Your task to perform on an android device: turn off wifi Image 0: 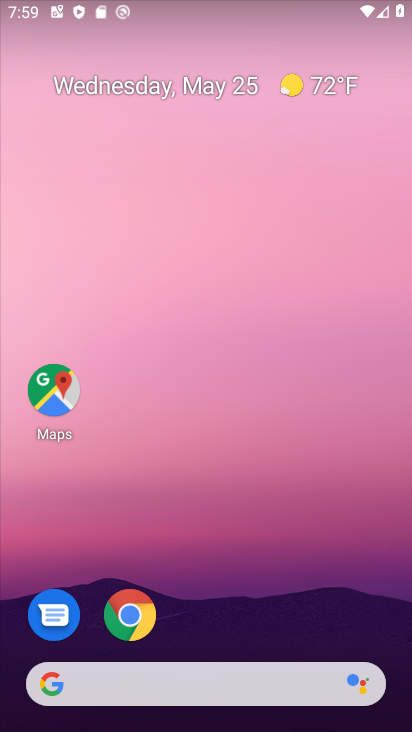
Step 0: drag from (237, 538) to (273, 39)
Your task to perform on an android device: turn off wifi Image 1: 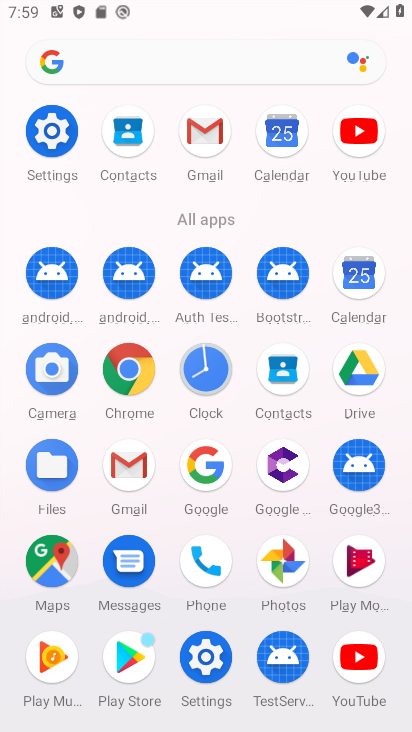
Step 1: click (52, 131)
Your task to perform on an android device: turn off wifi Image 2: 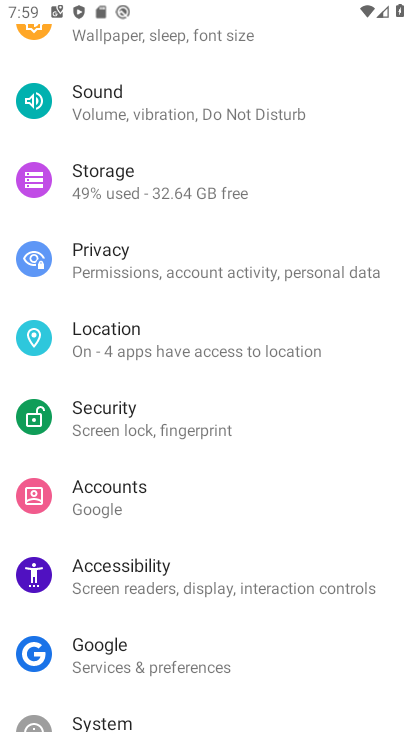
Step 2: drag from (149, 250) to (116, 592)
Your task to perform on an android device: turn off wifi Image 3: 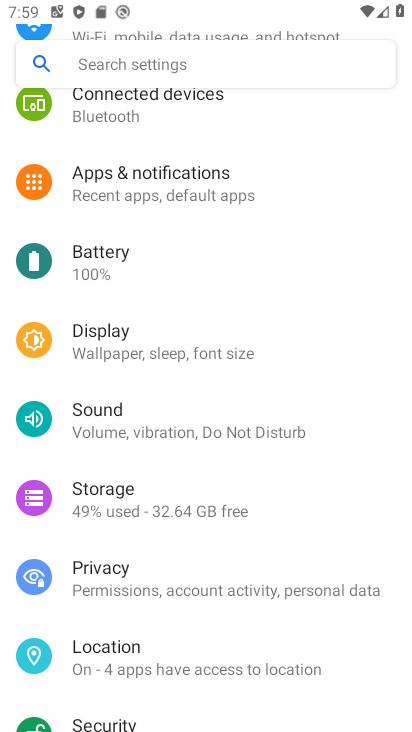
Step 3: drag from (243, 251) to (241, 591)
Your task to perform on an android device: turn off wifi Image 4: 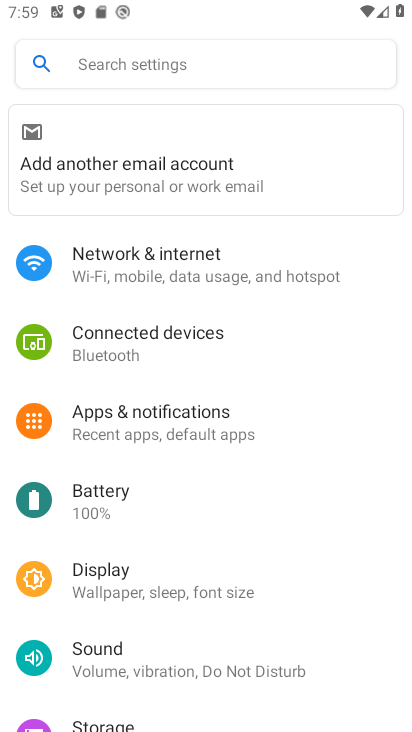
Step 4: click (245, 267)
Your task to perform on an android device: turn off wifi Image 5: 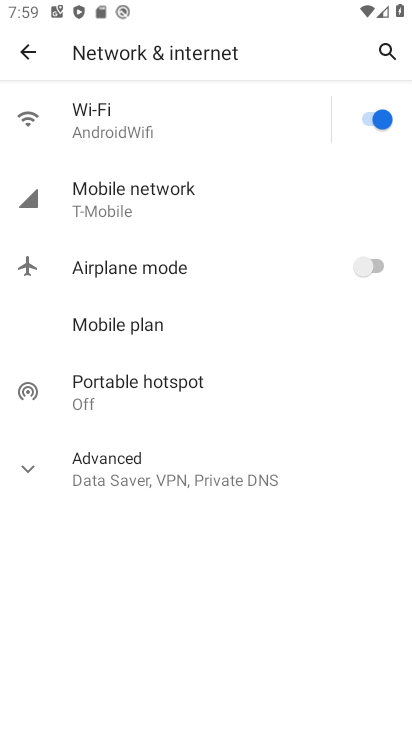
Step 5: click (366, 108)
Your task to perform on an android device: turn off wifi Image 6: 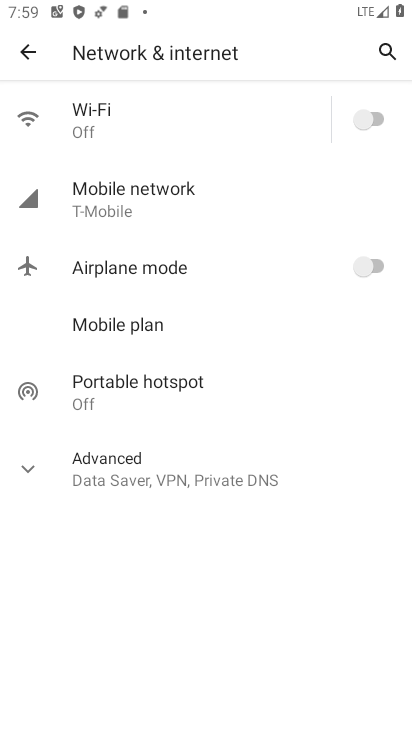
Step 6: task complete